Your task to perform on an android device: Open ESPN.com Image 0: 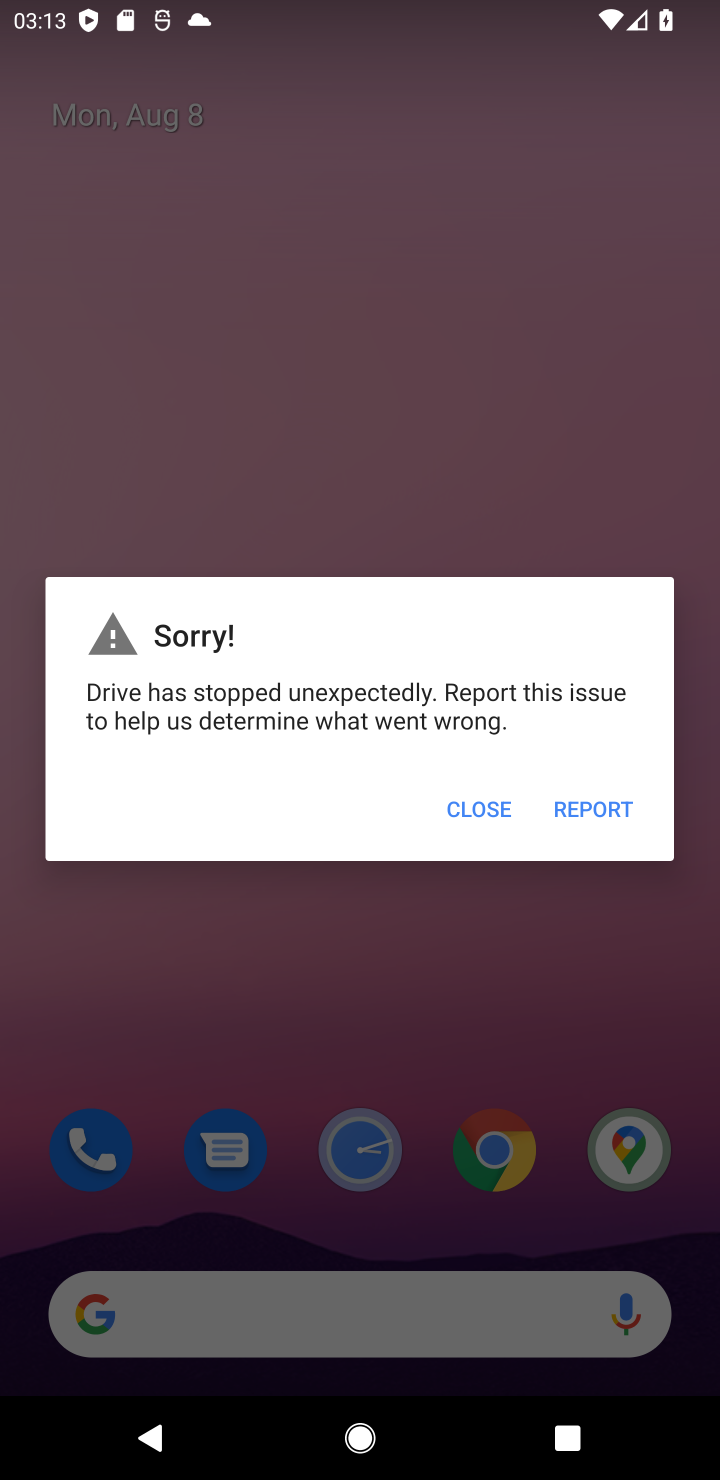
Step 0: click (277, 1324)
Your task to perform on an android device: Open ESPN.com Image 1: 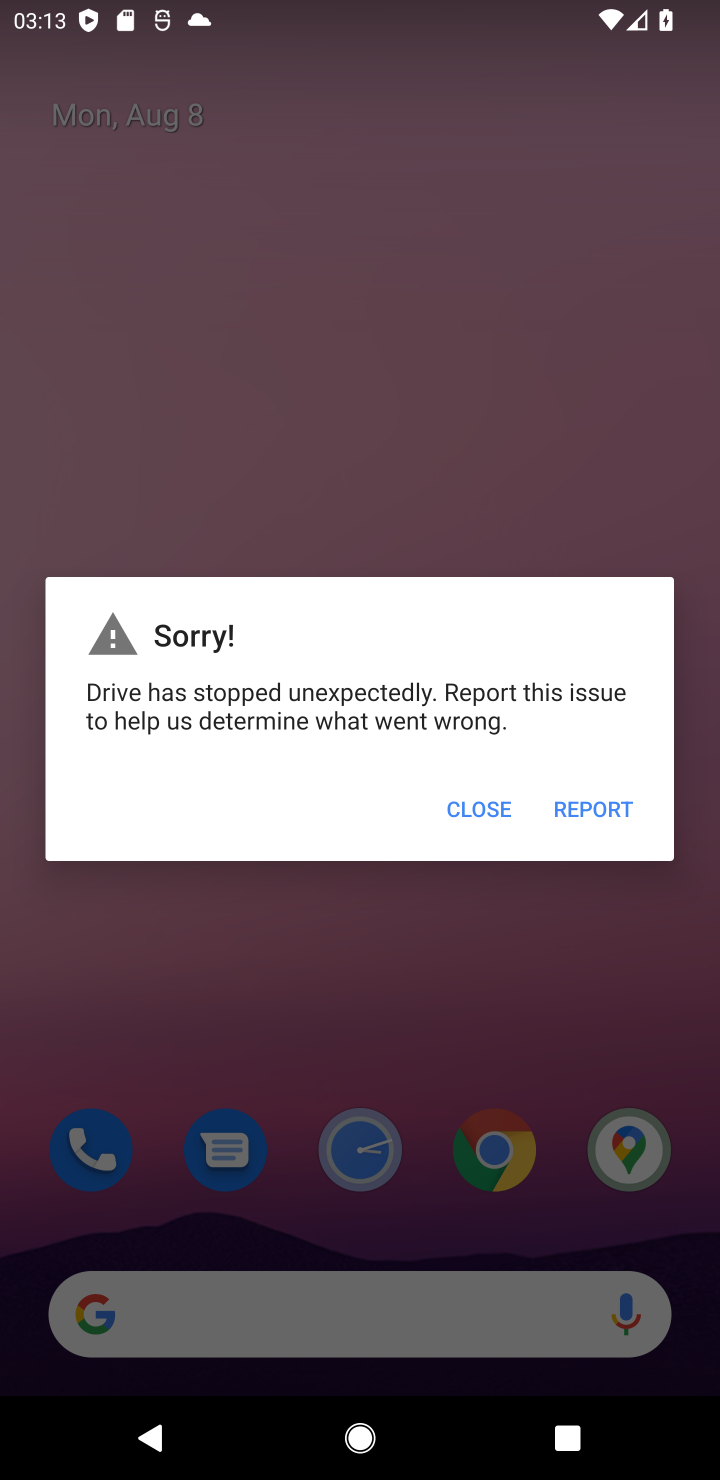
Step 1: press home button
Your task to perform on an android device: Open ESPN.com Image 2: 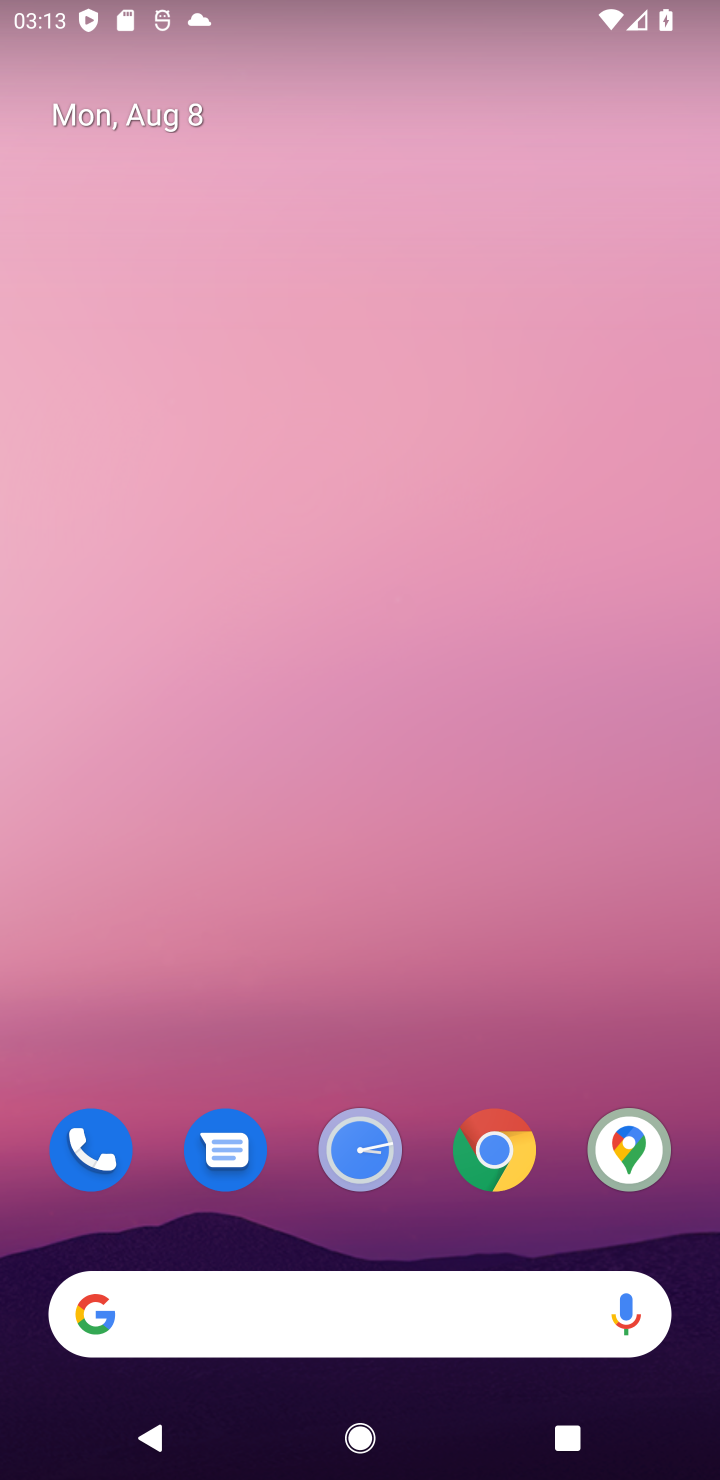
Step 2: click (177, 1329)
Your task to perform on an android device: Open ESPN.com Image 3: 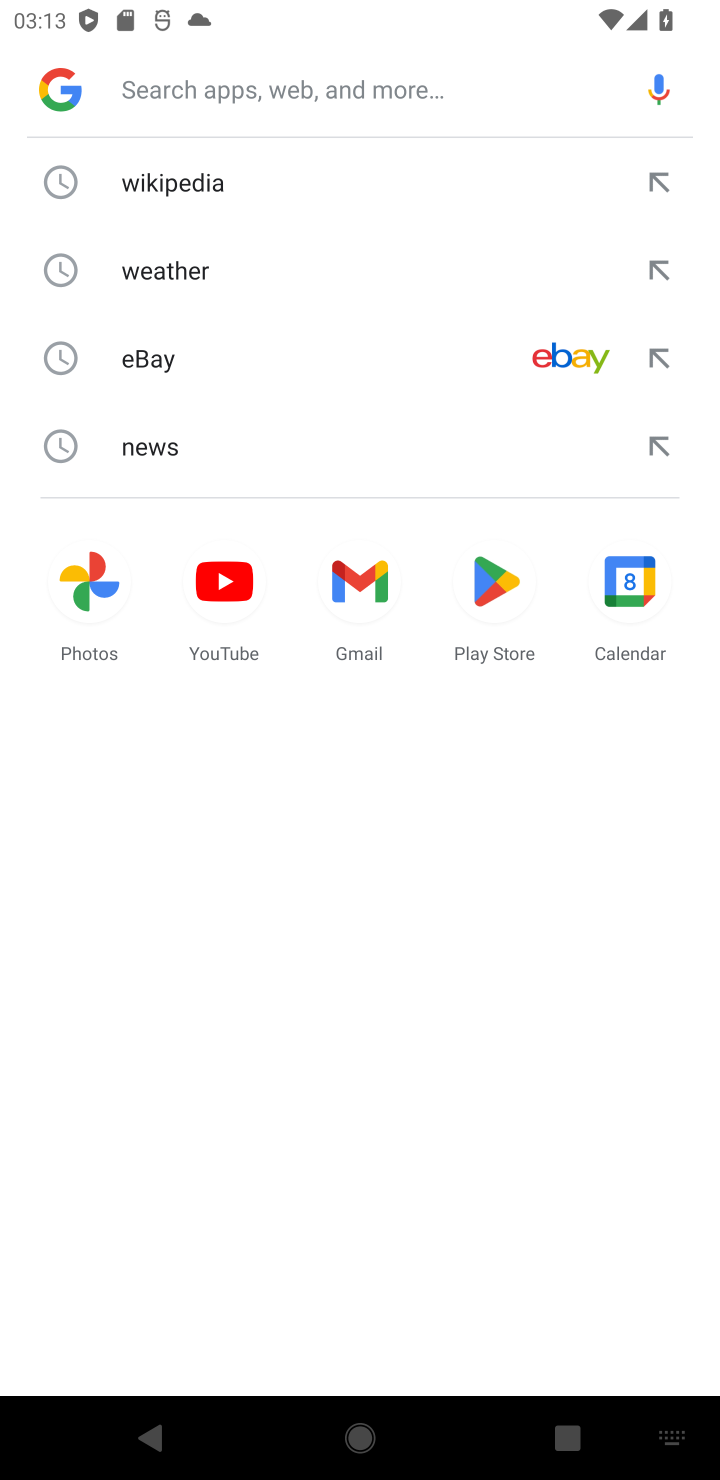
Step 3: type "ESPN.com"
Your task to perform on an android device: Open ESPN.com Image 4: 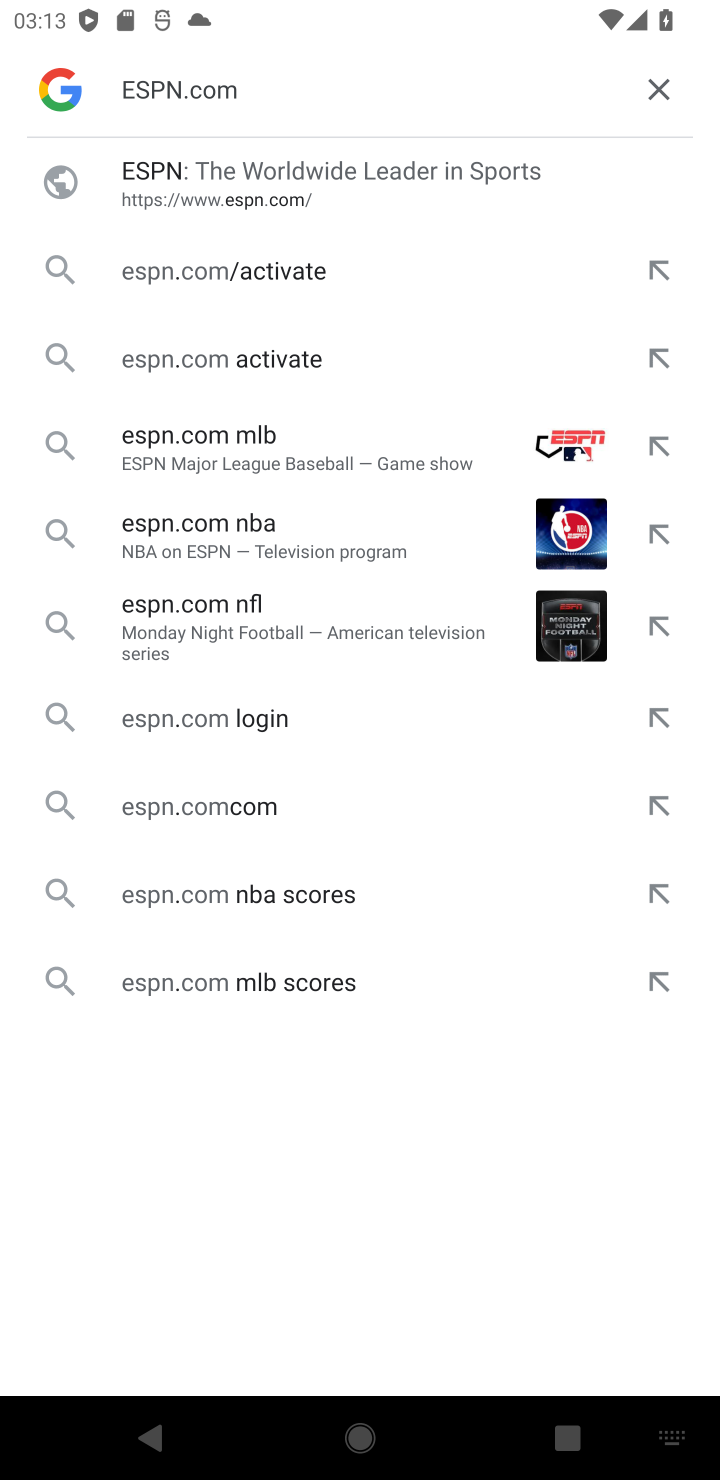
Step 4: type ""
Your task to perform on an android device: Open ESPN.com Image 5: 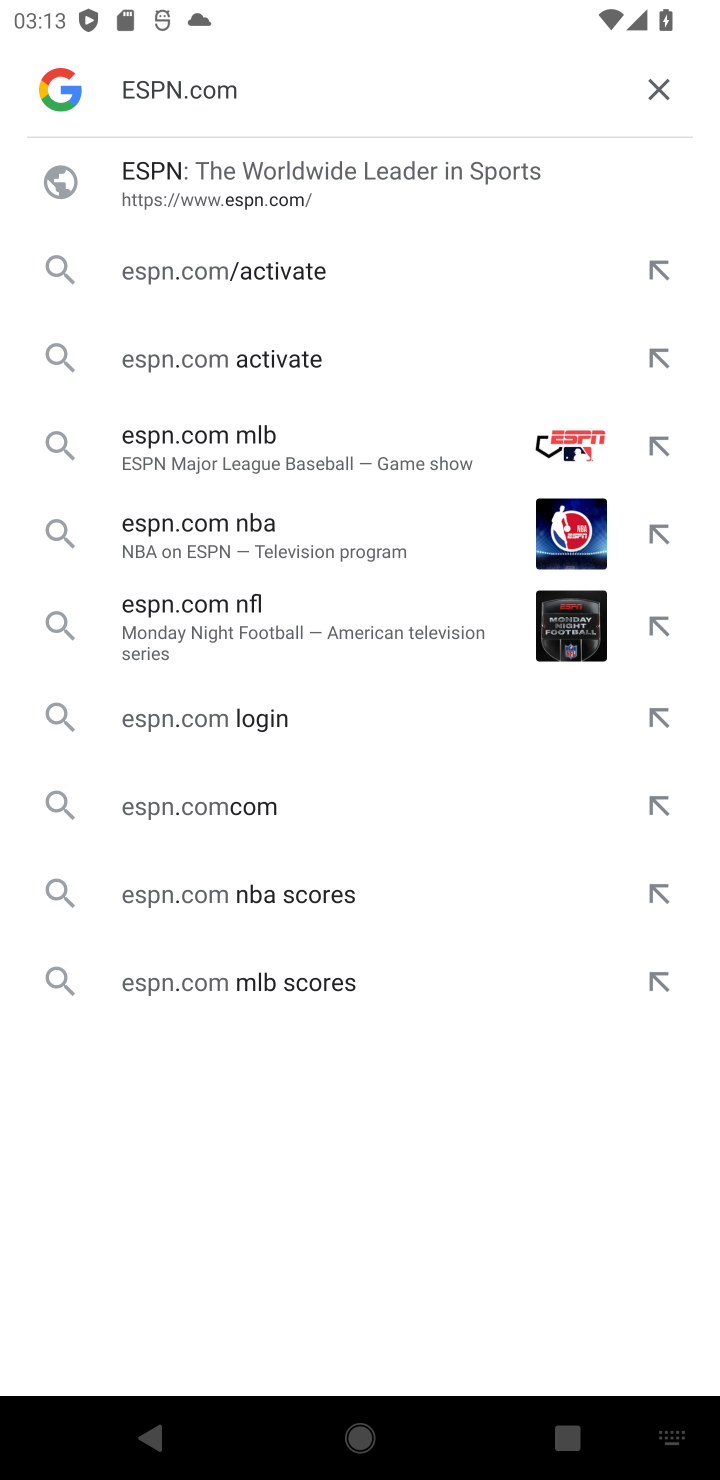
Step 5: click (152, 172)
Your task to perform on an android device: Open ESPN.com Image 6: 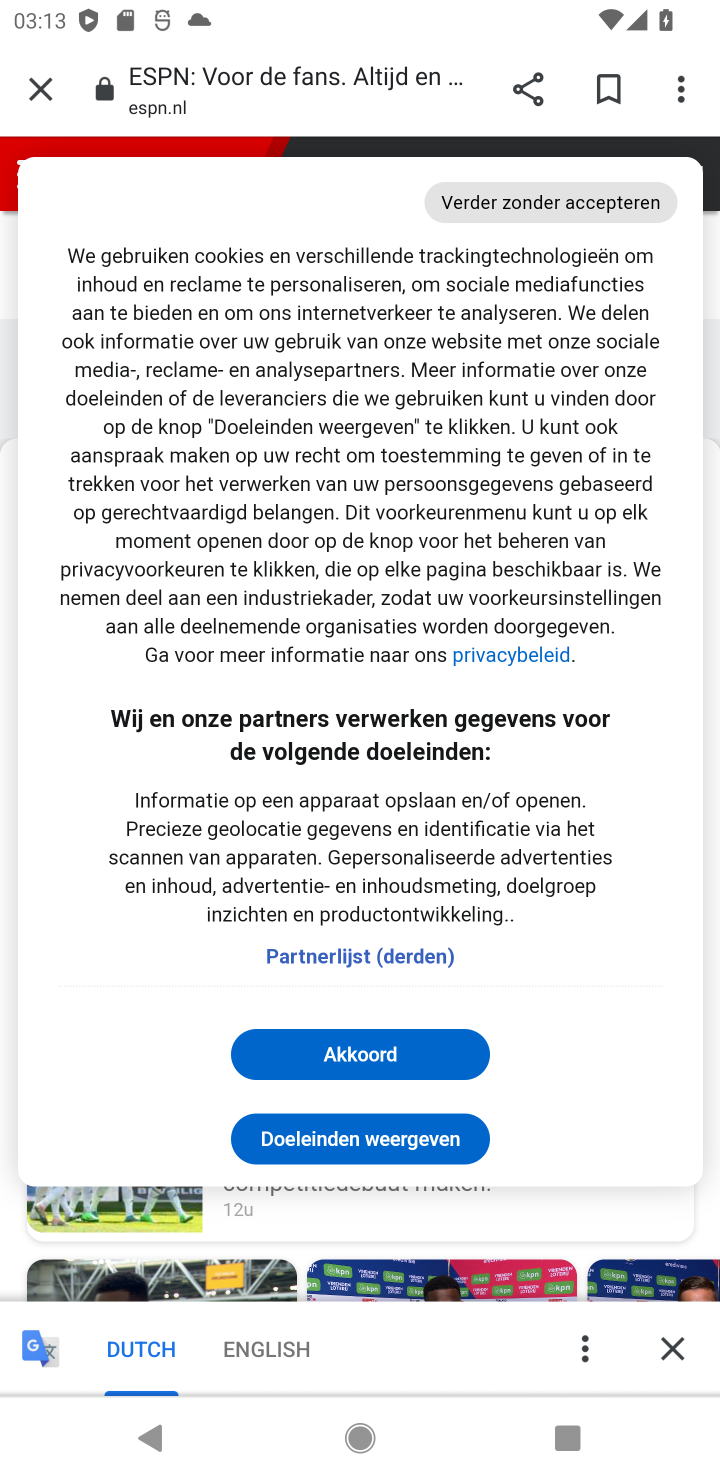
Step 6: task complete